Your task to perform on an android device: toggle show notifications on the lock screen Image 0: 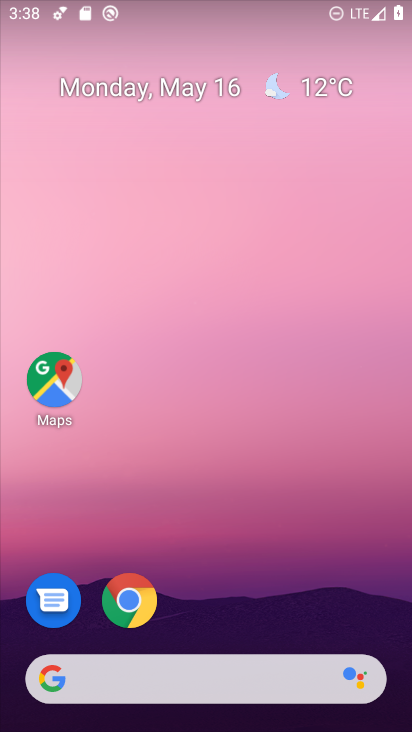
Step 0: press home button
Your task to perform on an android device: toggle show notifications on the lock screen Image 1: 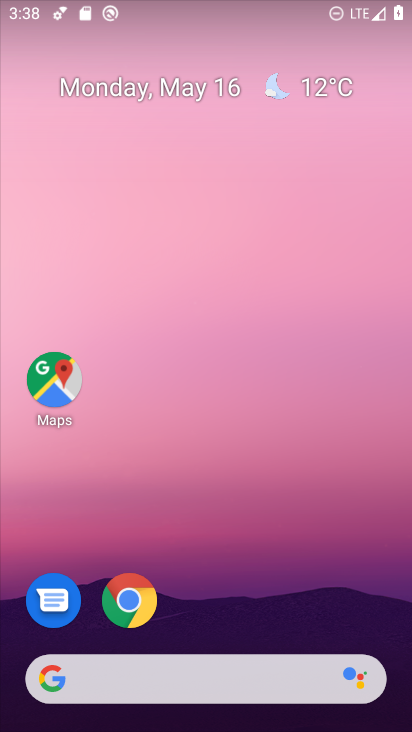
Step 1: drag from (225, 611) to (284, 73)
Your task to perform on an android device: toggle show notifications on the lock screen Image 2: 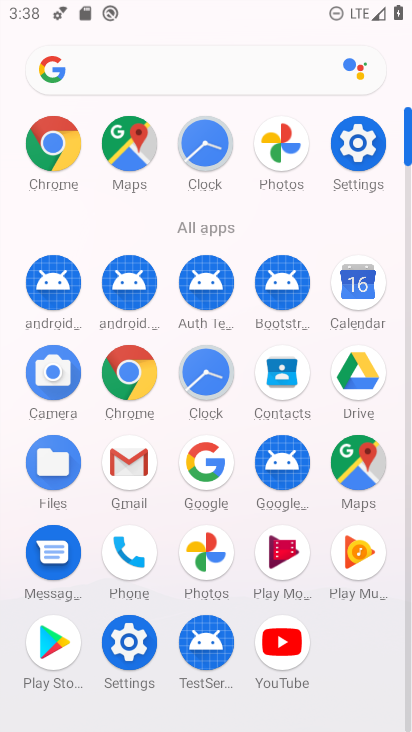
Step 2: click (349, 145)
Your task to perform on an android device: toggle show notifications on the lock screen Image 3: 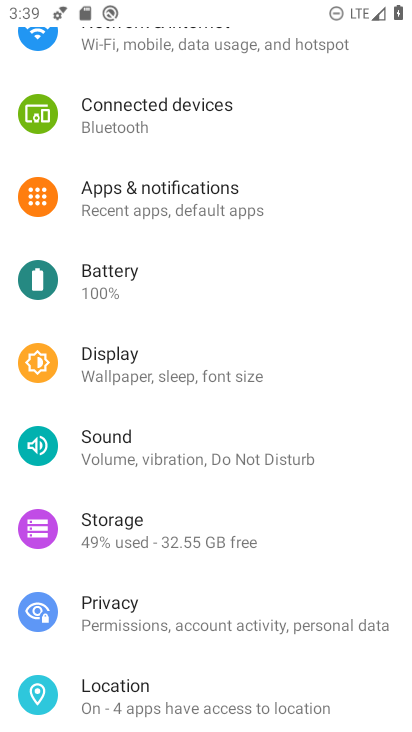
Step 3: click (169, 211)
Your task to perform on an android device: toggle show notifications on the lock screen Image 4: 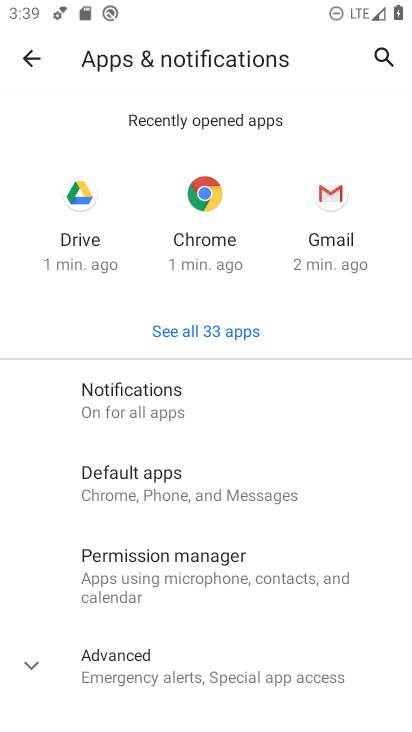
Step 4: click (181, 396)
Your task to perform on an android device: toggle show notifications on the lock screen Image 5: 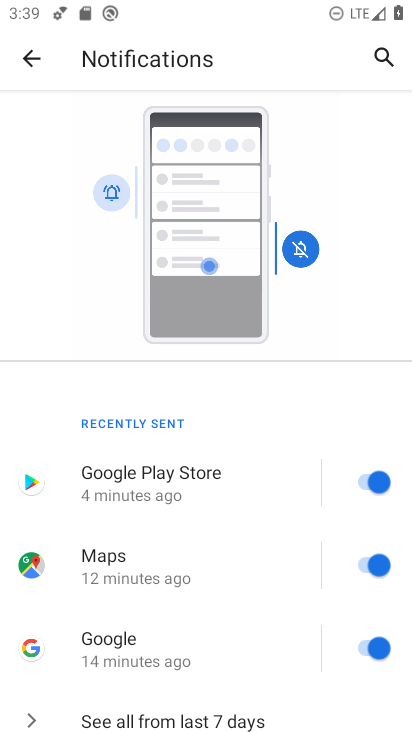
Step 5: drag from (225, 538) to (237, 14)
Your task to perform on an android device: toggle show notifications on the lock screen Image 6: 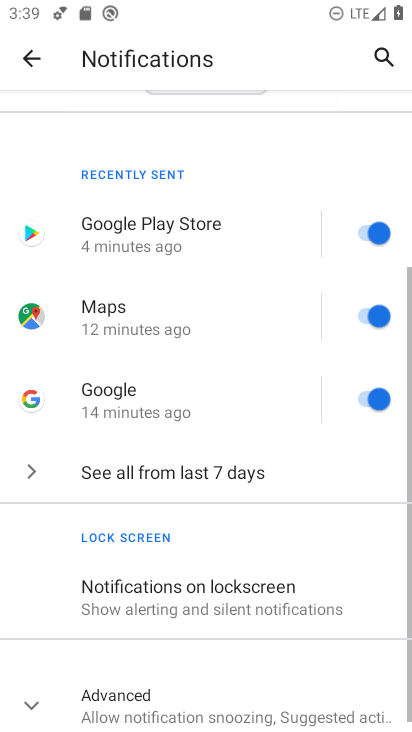
Step 6: click (156, 570)
Your task to perform on an android device: toggle show notifications on the lock screen Image 7: 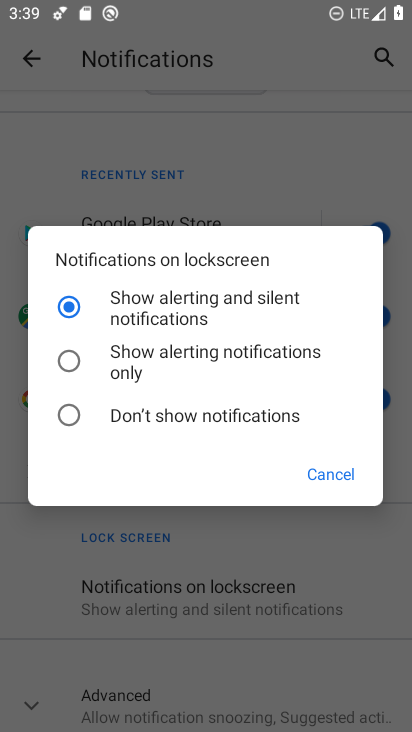
Step 7: click (225, 363)
Your task to perform on an android device: toggle show notifications on the lock screen Image 8: 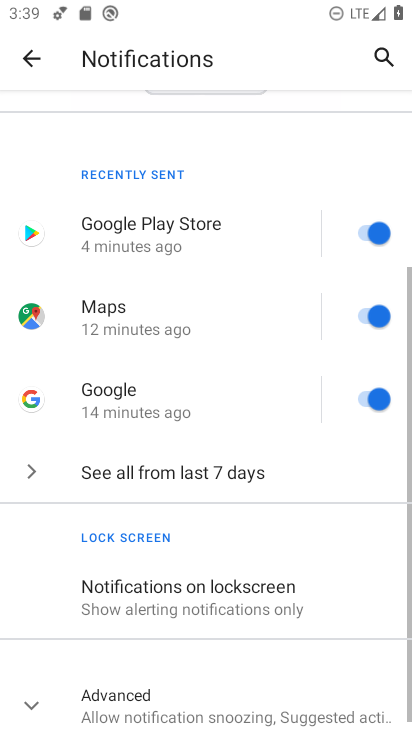
Step 8: task complete